Your task to perform on an android device: Is it going to rain today? Image 0: 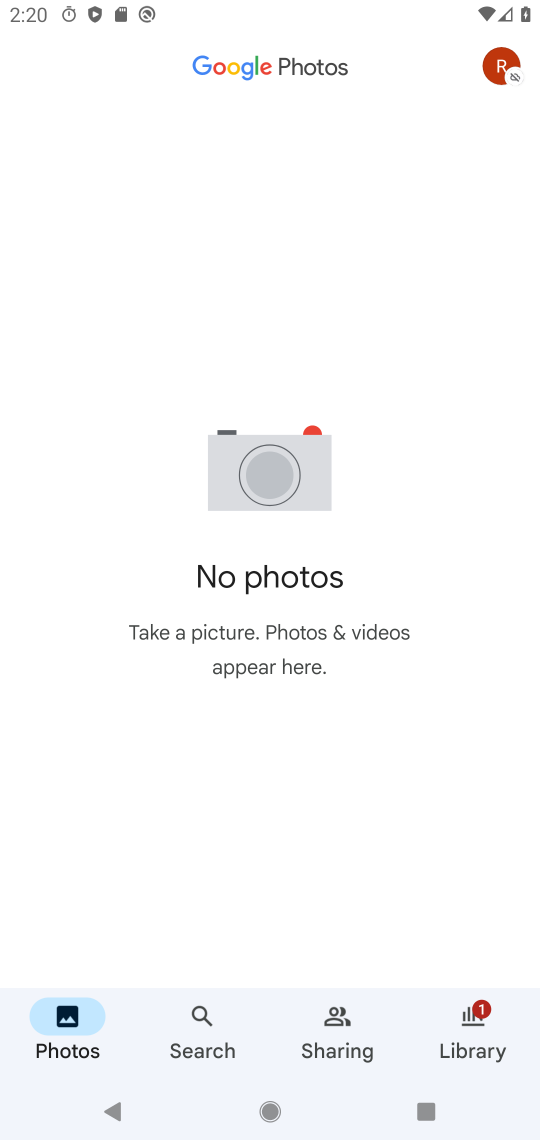
Step 0: press home button
Your task to perform on an android device: Is it going to rain today? Image 1: 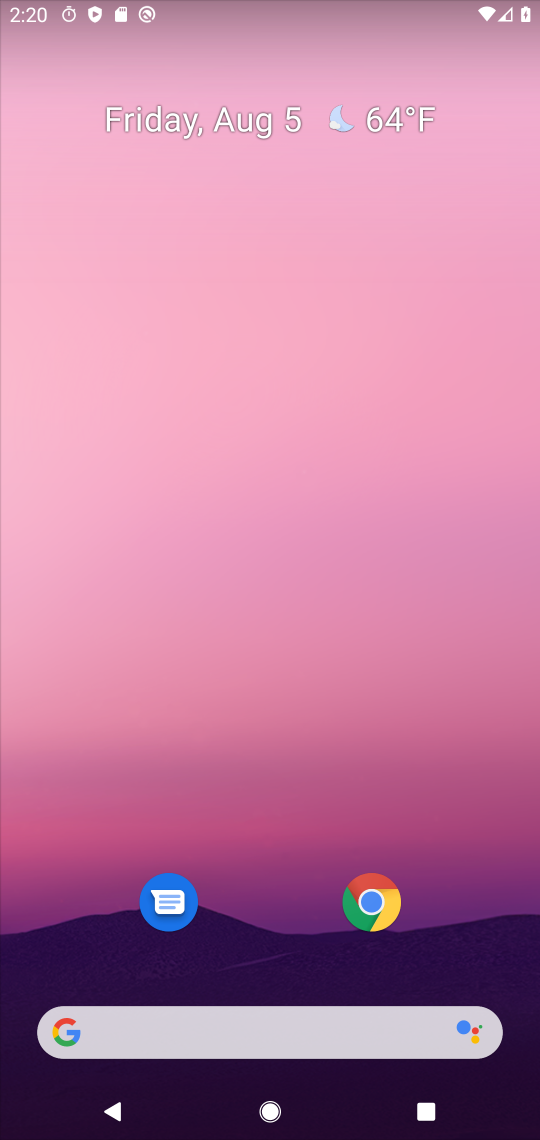
Step 1: drag from (382, 1008) to (304, 383)
Your task to perform on an android device: Is it going to rain today? Image 2: 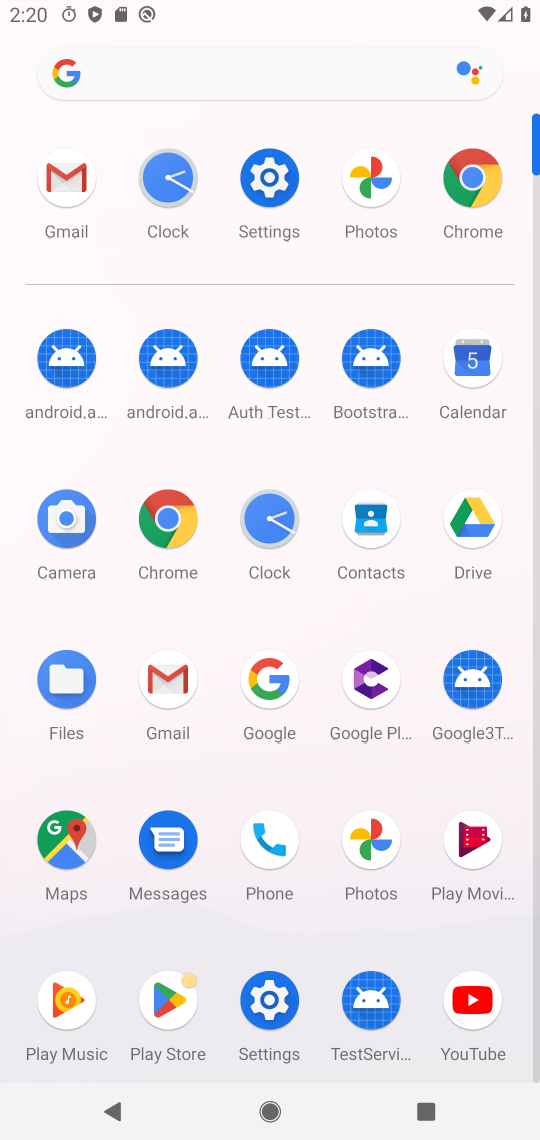
Step 2: click (164, 68)
Your task to perform on an android device: Is it going to rain today? Image 3: 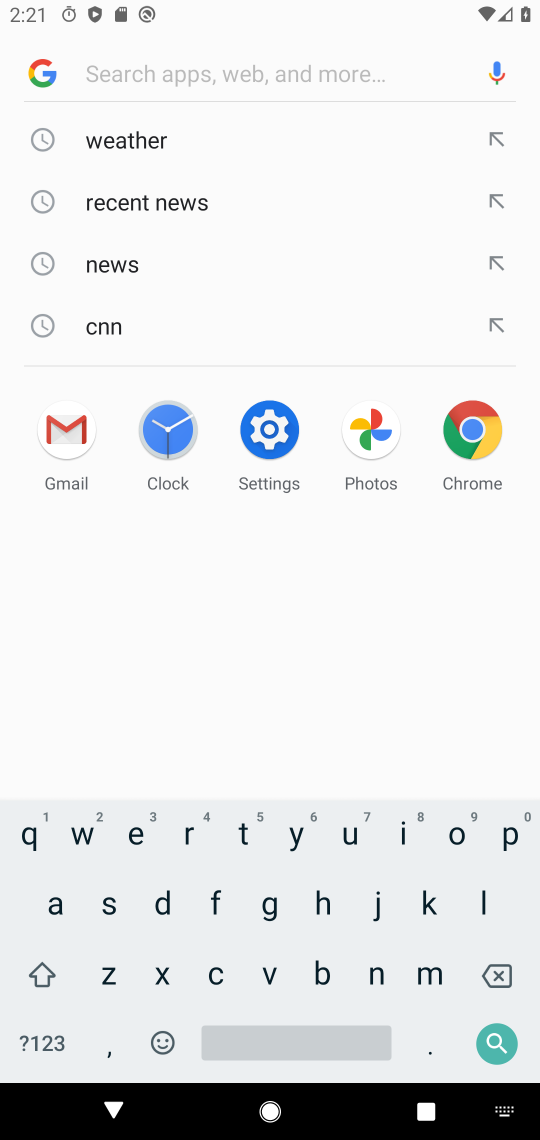
Step 3: click (169, 154)
Your task to perform on an android device: Is it going to rain today? Image 4: 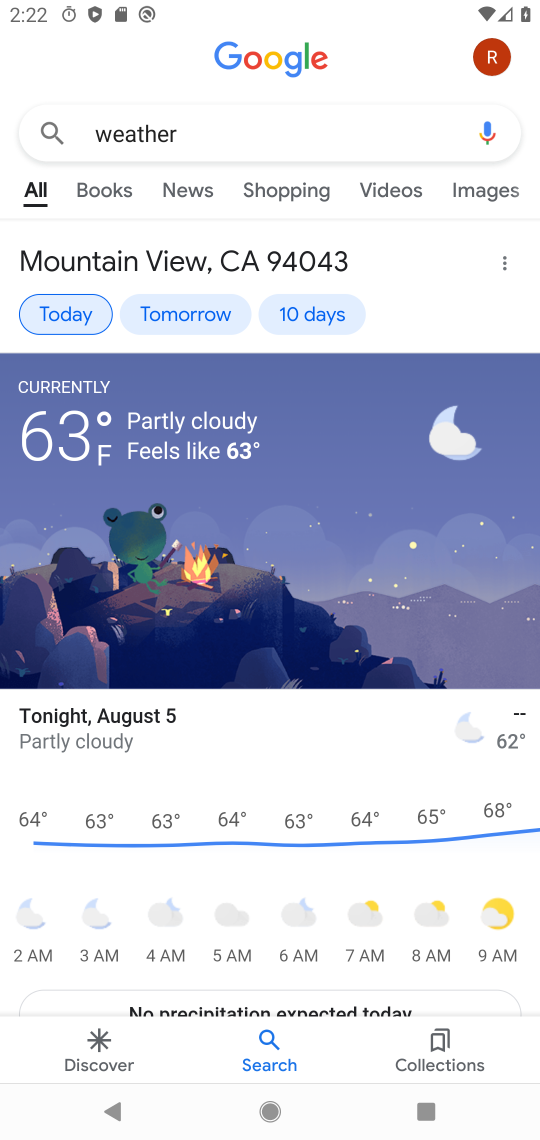
Step 4: task complete